Your task to perform on an android device: turn smart compose on in the gmail app Image 0: 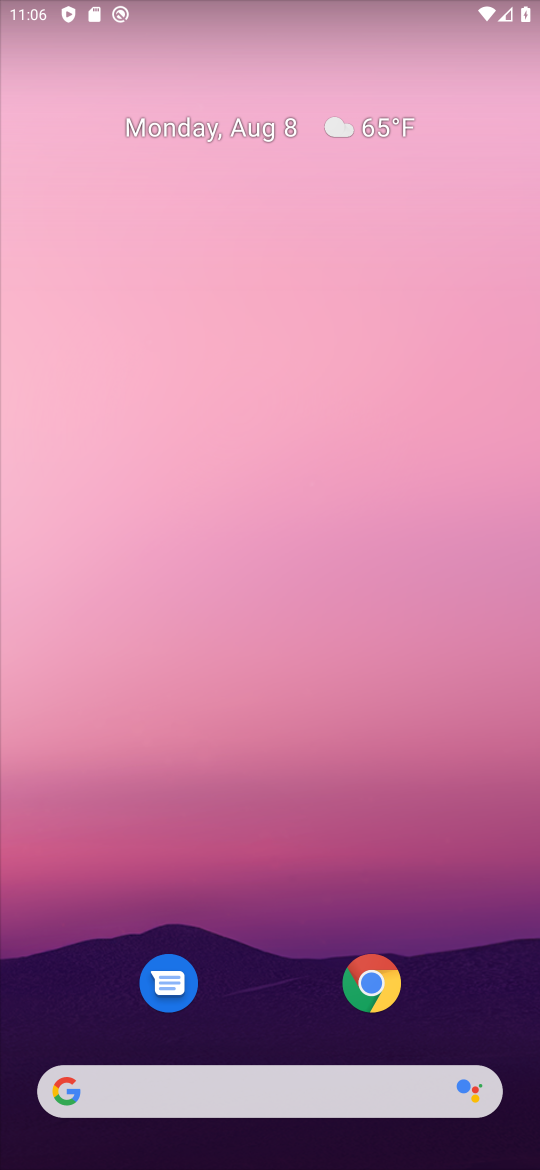
Step 0: drag from (314, 1032) to (268, 43)
Your task to perform on an android device: turn smart compose on in the gmail app Image 1: 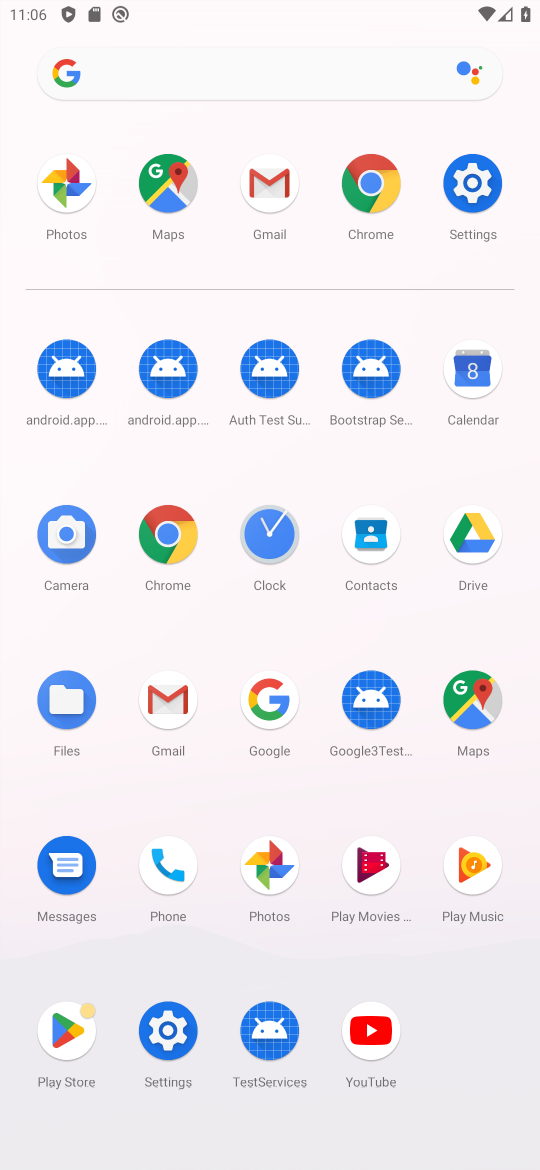
Step 1: click (272, 227)
Your task to perform on an android device: turn smart compose on in the gmail app Image 2: 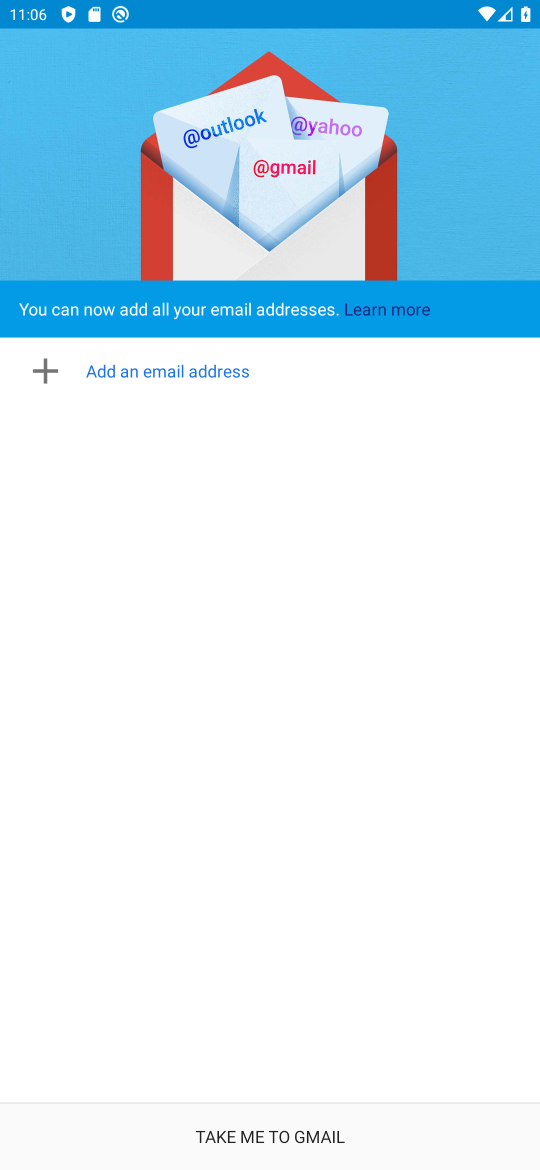
Step 2: task complete